Your task to perform on an android device: open wifi settings Image 0: 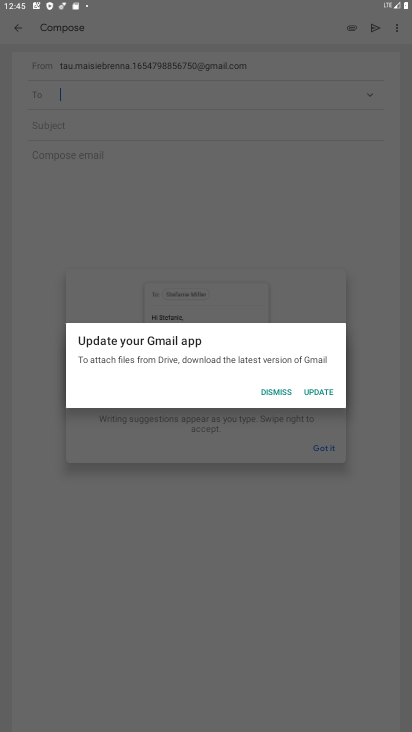
Step 0: press home button
Your task to perform on an android device: open wifi settings Image 1: 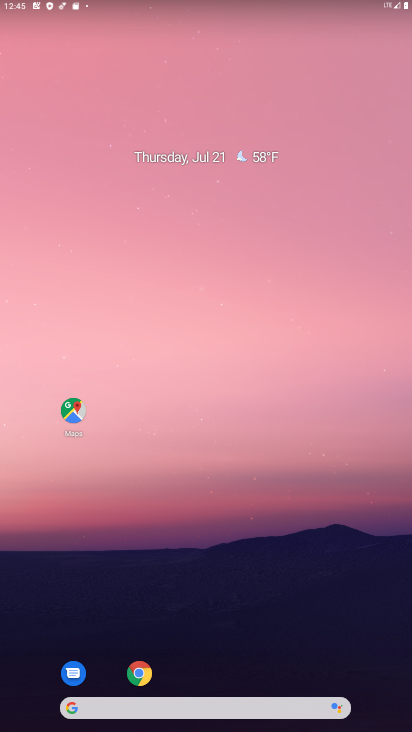
Step 1: drag from (222, 685) to (226, 252)
Your task to perform on an android device: open wifi settings Image 2: 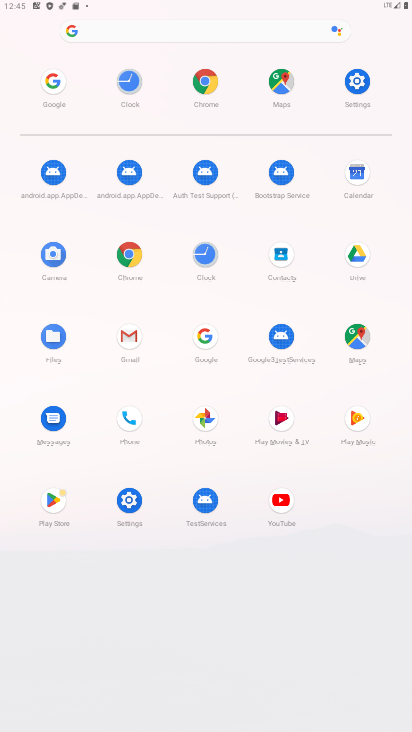
Step 2: click (355, 68)
Your task to perform on an android device: open wifi settings Image 3: 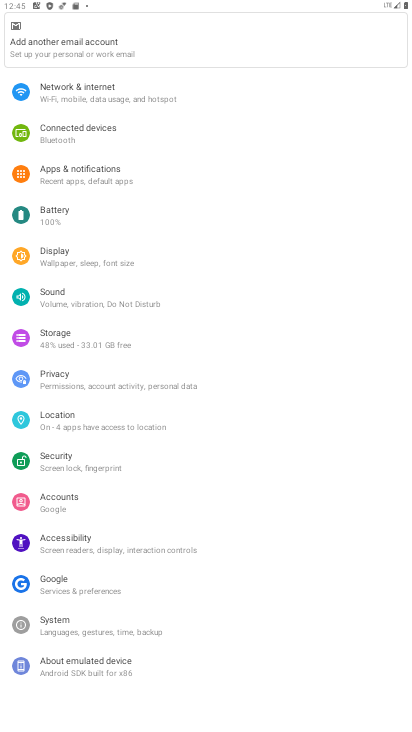
Step 3: click (110, 89)
Your task to perform on an android device: open wifi settings Image 4: 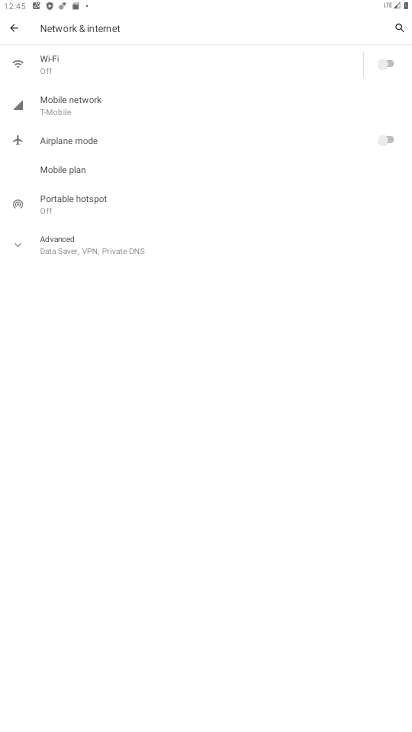
Step 4: click (93, 61)
Your task to perform on an android device: open wifi settings Image 5: 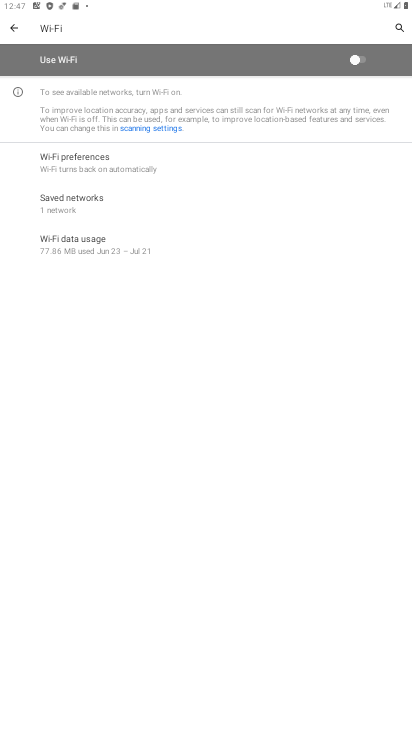
Step 5: task complete